Your task to perform on an android device: turn on wifi Image 0: 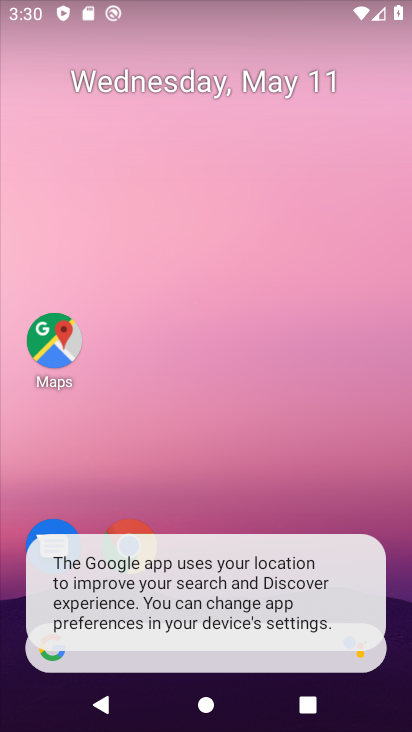
Step 0: drag from (240, 586) to (366, 149)
Your task to perform on an android device: turn on wifi Image 1: 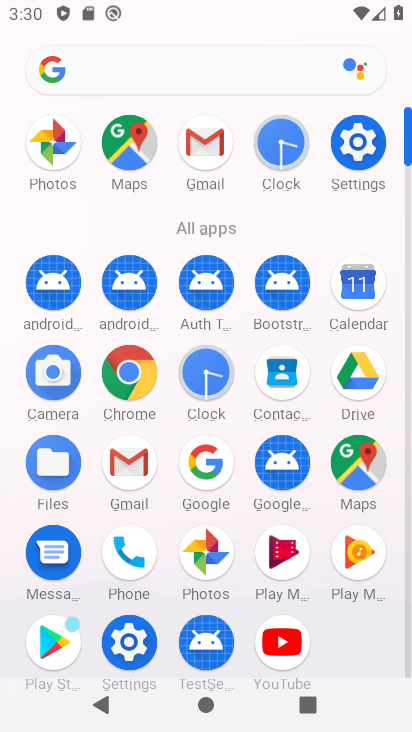
Step 1: click (119, 661)
Your task to perform on an android device: turn on wifi Image 2: 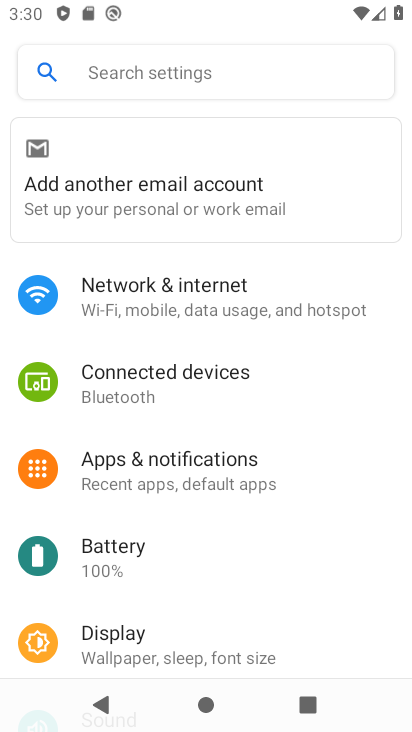
Step 2: click (231, 317)
Your task to perform on an android device: turn on wifi Image 3: 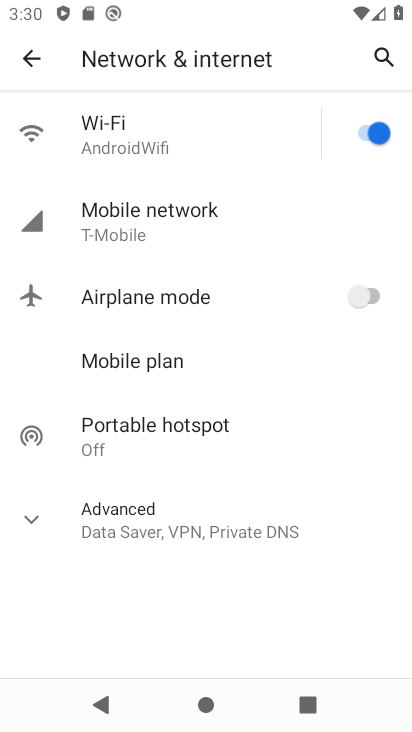
Step 3: task complete